Your task to perform on an android device: Go to Yahoo.com Image 0: 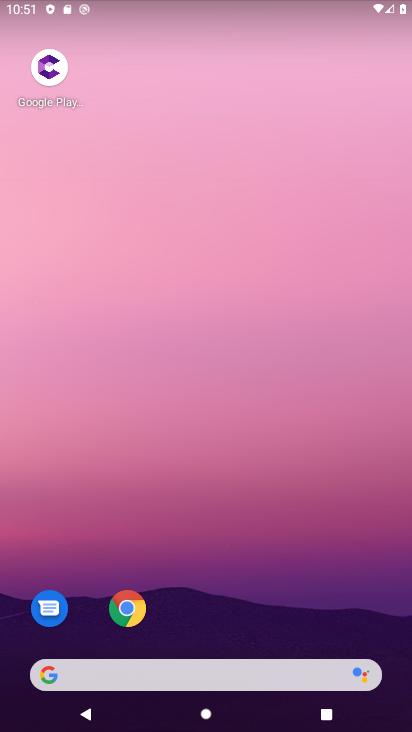
Step 0: drag from (218, 656) to (117, 12)
Your task to perform on an android device: Go to Yahoo.com Image 1: 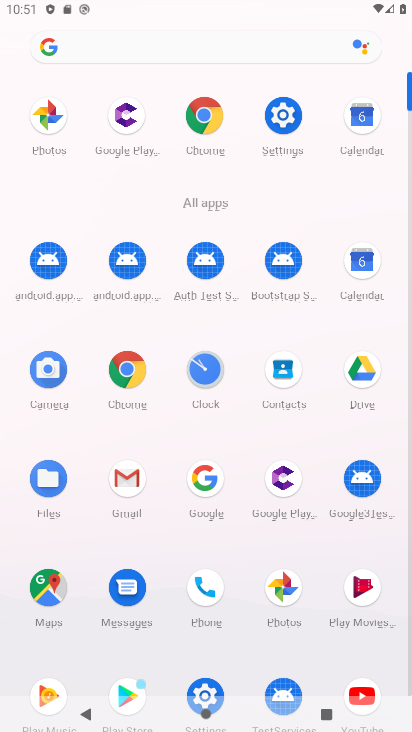
Step 1: click (184, 109)
Your task to perform on an android device: Go to Yahoo.com Image 2: 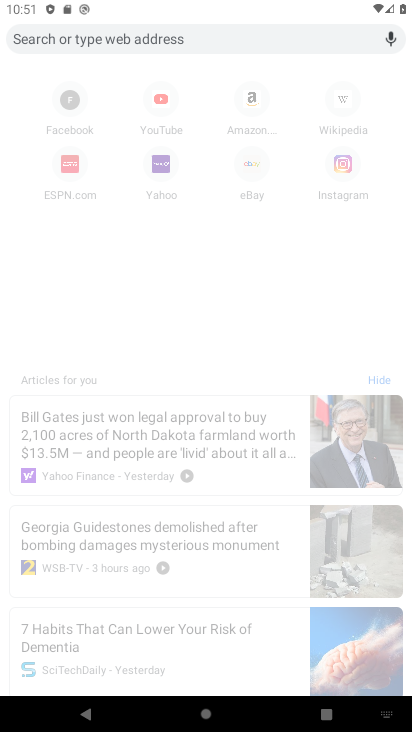
Step 2: click (168, 216)
Your task to perform on an android device: Go to Yahoo.com Image 3: 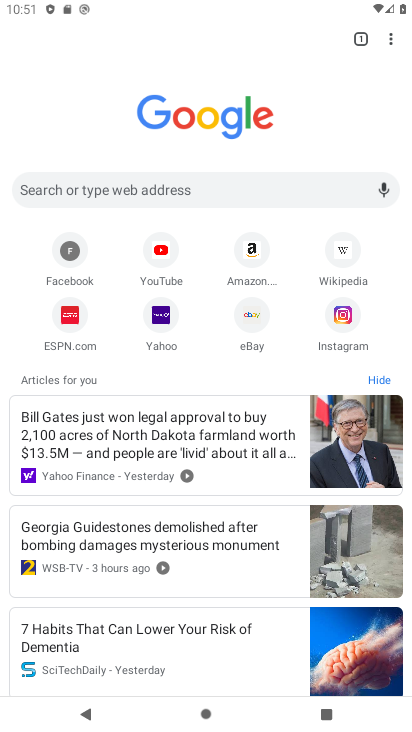
Step 3: click (154, 332)
Your task to perform on an android device: Go to Yahoo.com Image 4: 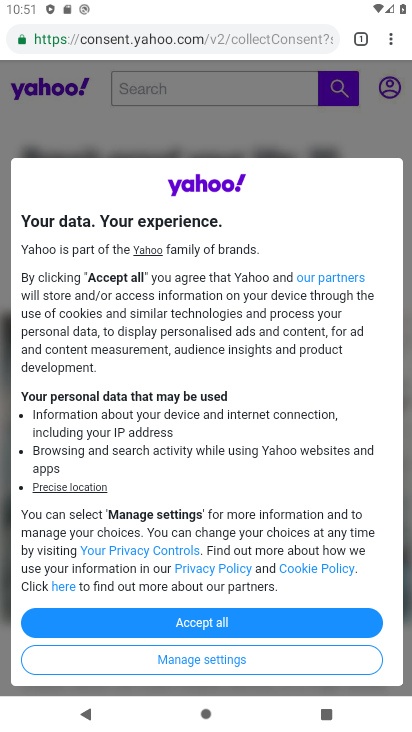
Step 4: task complete